Your task to perform on an android device: Open settings on Google Maps Image 0: 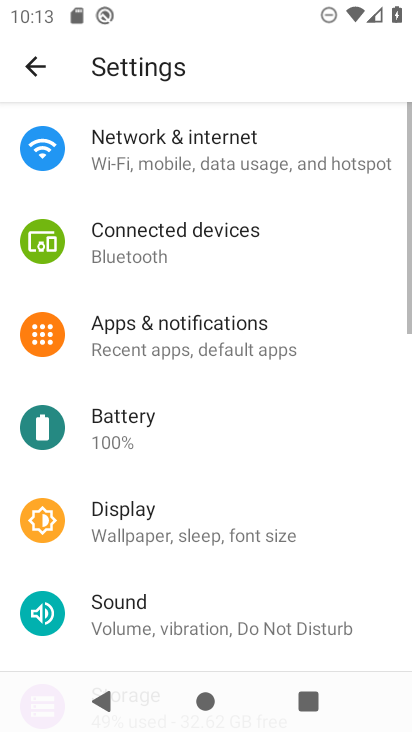
Step 0: press home button
Your task to perform on an android device: Open settings on Google Maps Image 1: 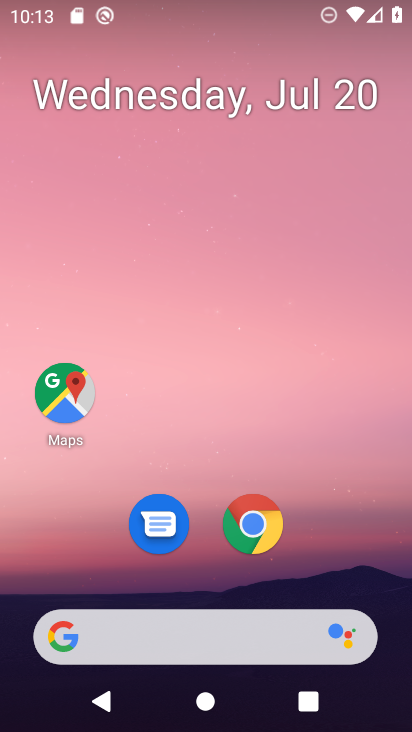
Step 1: click (64, 391)
Your task to perform on an android device: Open settings on Google Maps Image 2: 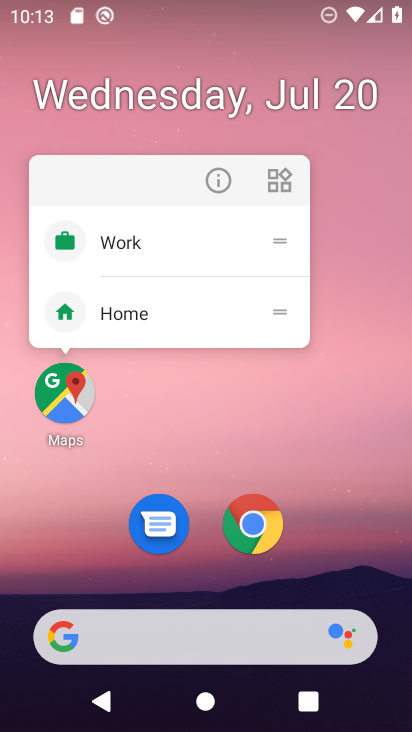
Step 2: click (65, 401)
Your task to perform on an android device: Open settings on Google Maps Image 3: 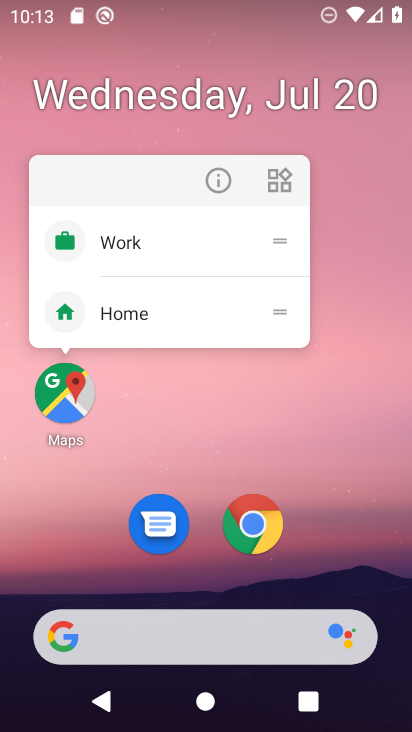
Step 3: click (65, 401)
Your task to perform on an android device: Open settings on Google Maps Image 4: 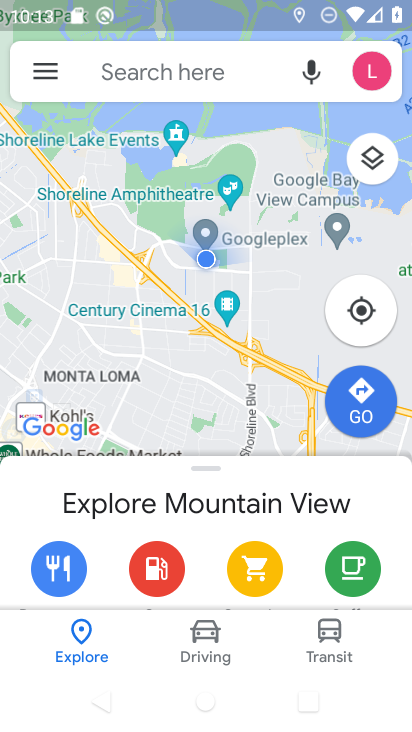
Step 4: click (51, 68)
Your task to perform on an android device: Open settings on Google Maps Image 5: 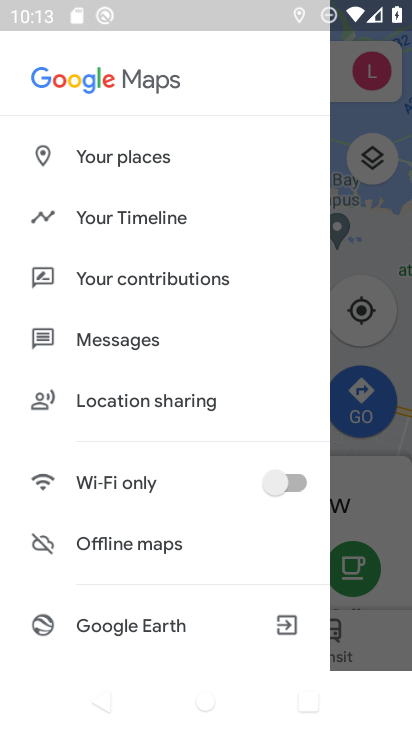
Step 5: drag from (153, 589) to (204, 115)
Your task to perform on an android device: Open settings on Google Maps Image 6: 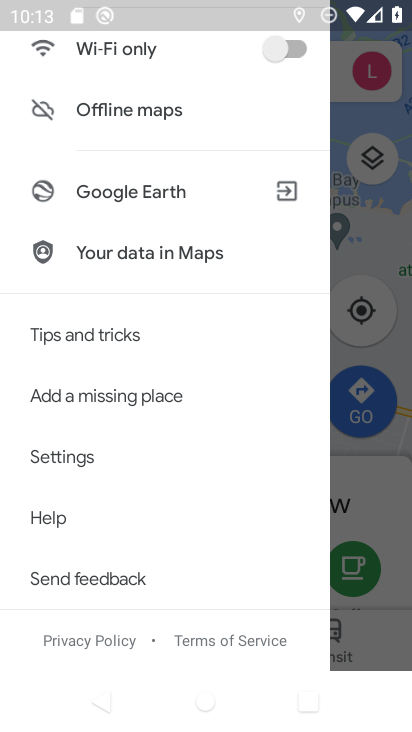
Step 6: click (85, 456)
Your task to perform on an android device: Open settings on Google Maps Image 7: 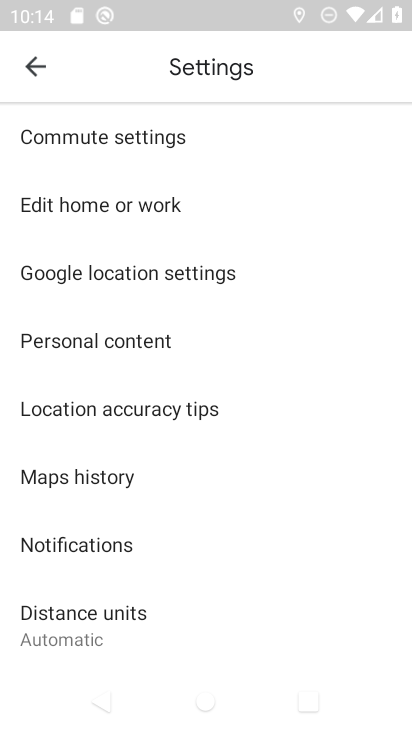
Step 7: task complete